Your task to perform on an android device: change the clock display to show seconds Image 0: 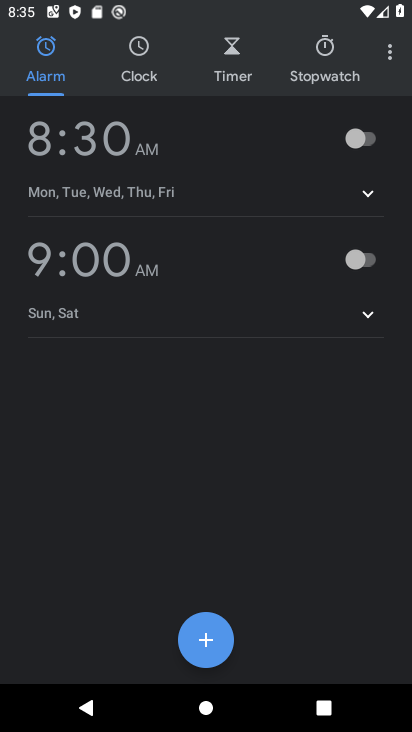
Step 0: click (392, 66)
Your task to perform on an android device: change the clock display to show seconds Image 1: 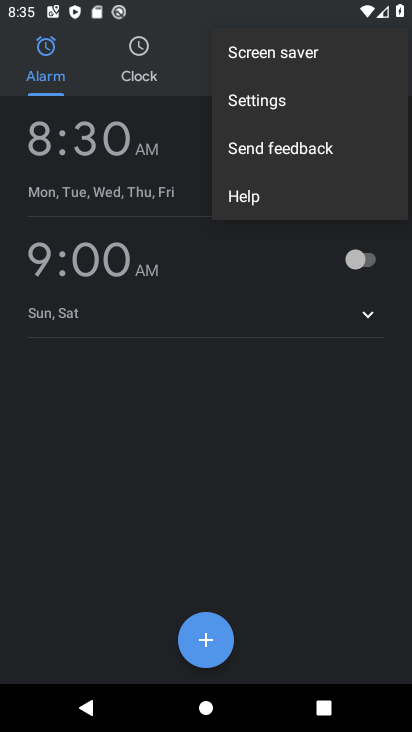
Step 1: click (296, 107)
Your task to perform on an android device: change the clock display to show seconds Image 2: 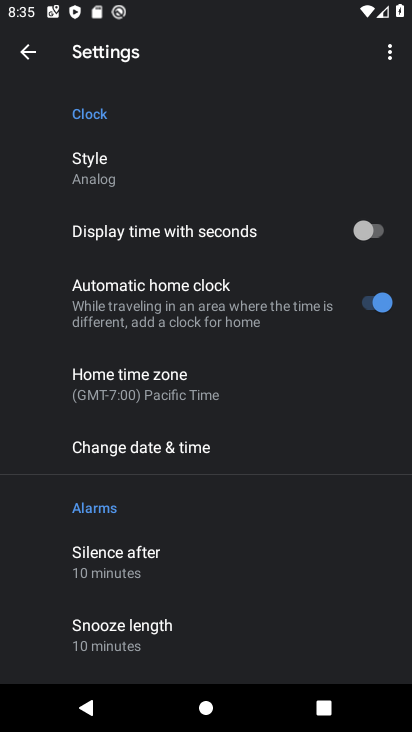
Step 2: click (380, 228)
Your task to perform on an android device: change the clock display to show seconds Image 3: 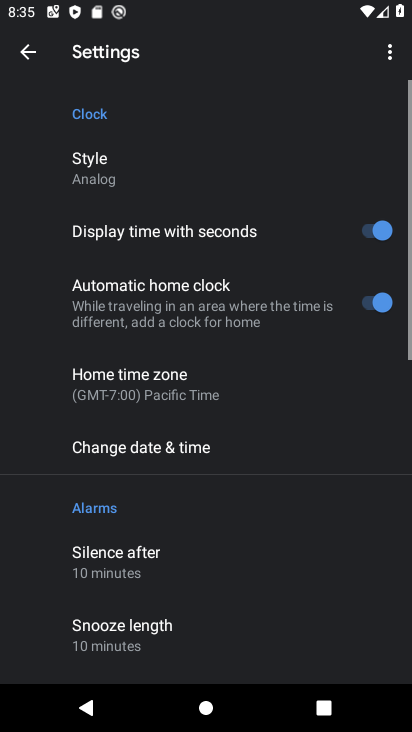
Step 3: task complete